Your task to perform on an android device: turn off notifications in google photos Image 0: 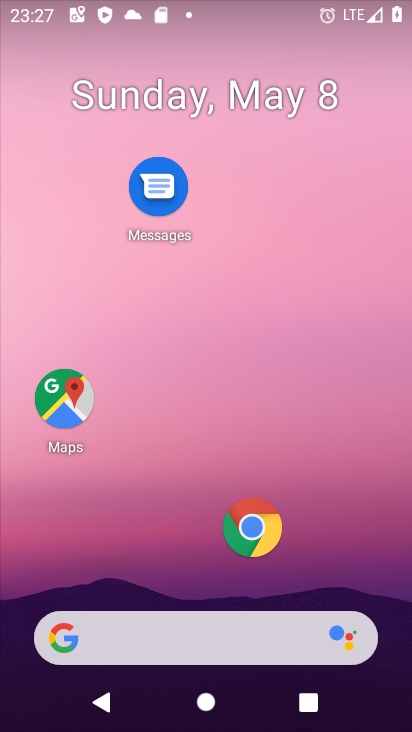
Step 0: drag from (179, 528) to (253, 85)
Your task to perform on an android device: turn off notifications in google photos Image 1: 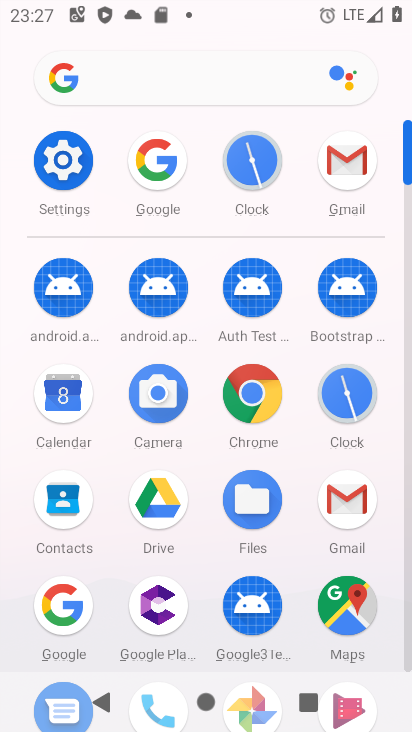
Step 1: drag from (198, 556) to (218, 222)
Your task to perform on an android device: turn off notifications in google photos Image 2: 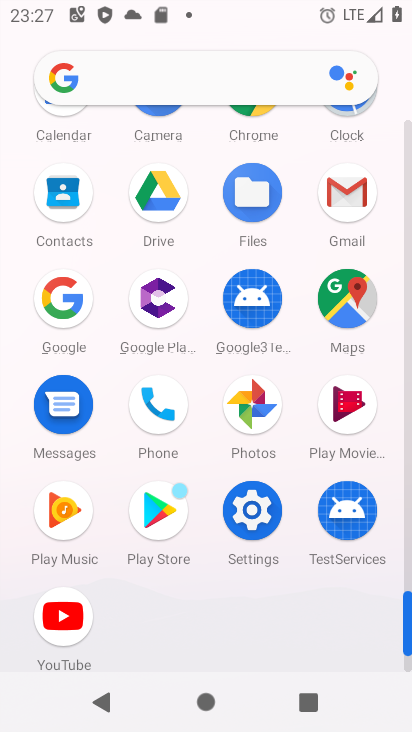
Step 2: click (253, 408)
Your task to perform on an android device: turn off notifications in google photos Image 3: 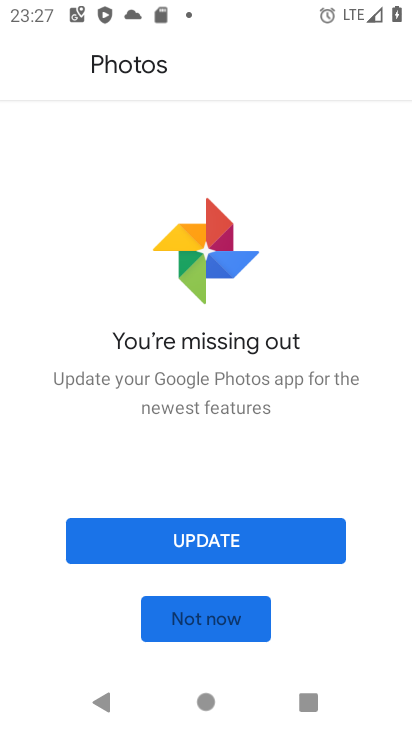
Step 3: click (202, 533)
Your task to perform on an android device: turn off notifications in google photos Image 4: 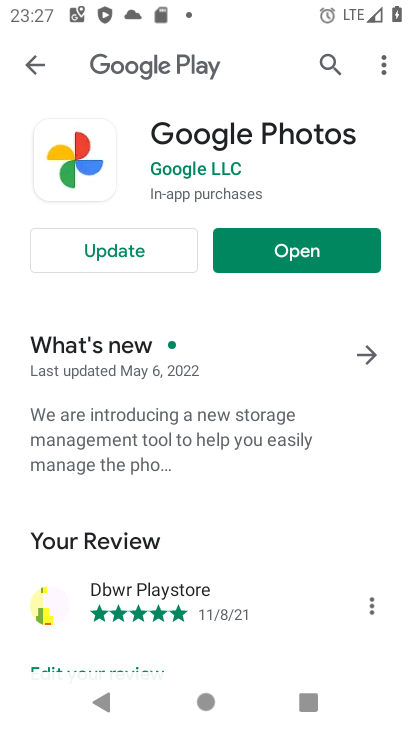
Step 4: click (102, 250)
Your task to perform on an android device: turn off notifications in google photos Image 5: 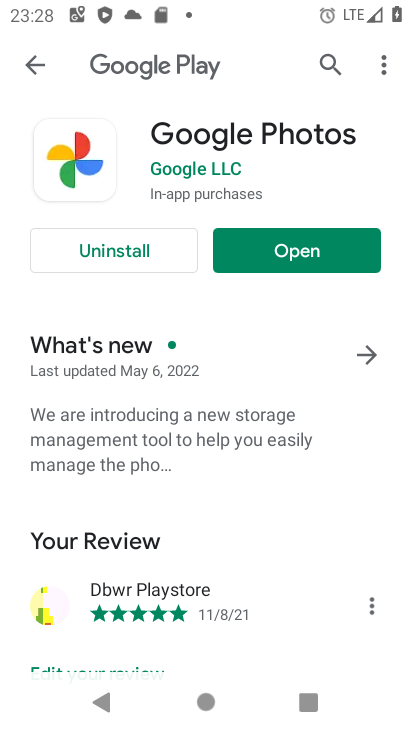
Step 5: click (319, 249)
Your task to perform on an android device: turn off notifications in google photos Image 6: 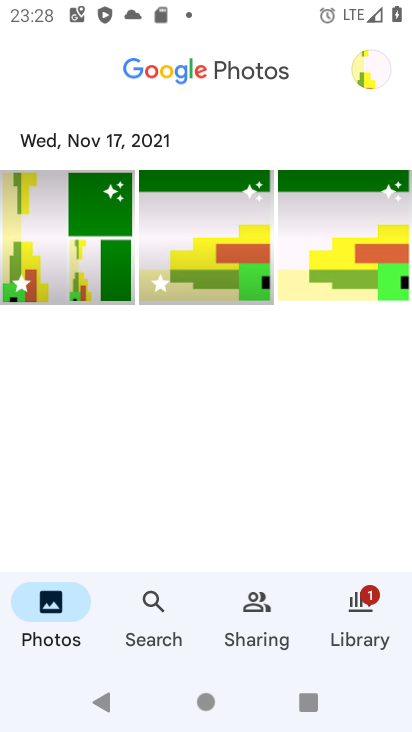
Step 6: click (370, 70)
Your task to perform on an android device: turn off notifications in google photos Image 7: 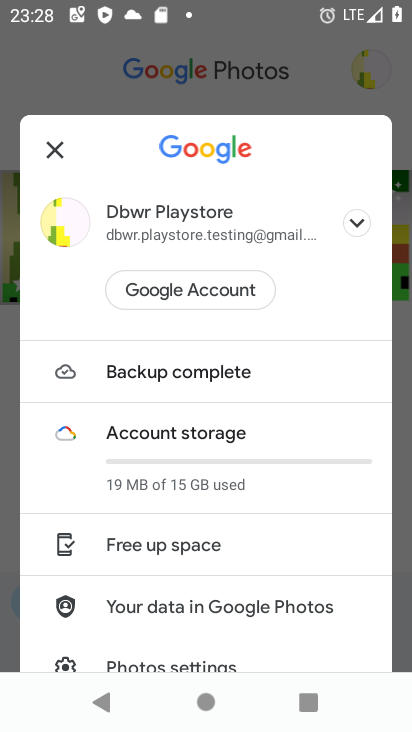
Step 7: drag from (180, 578) to (203, 313)
Your task to perform on an android device: turn off notifications in google photos Image 8: 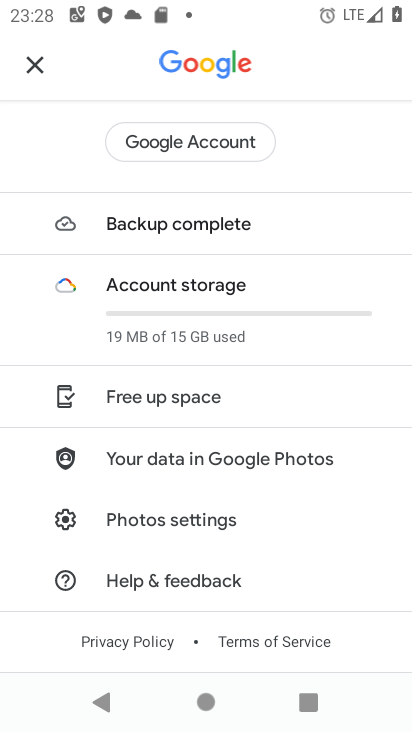
Step 8: click (176, 521)
Your task to perform on an android device: turn off notifications in google photos Image 9: 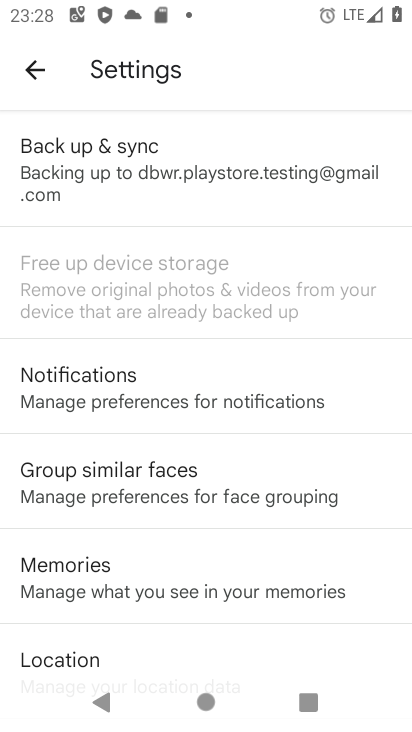
Step 9: drag from (184, 541) to (183, 378)
Your task to perform on an android device: turn off notifications in google photos Image 10: 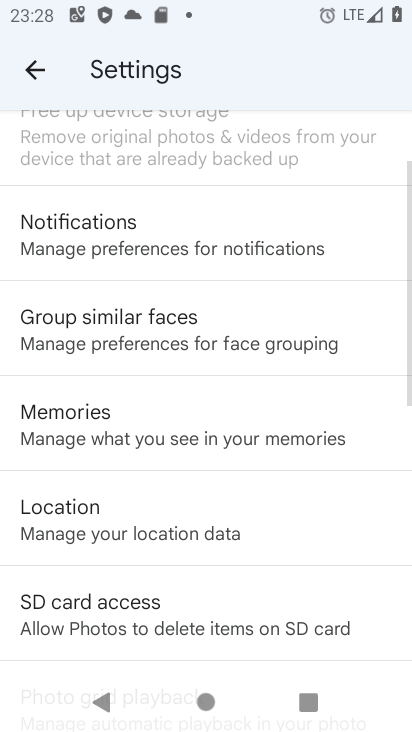
Step 10: click (143, 218)
Your task to perform on an android device: turn off notifications in google photos Image 11: 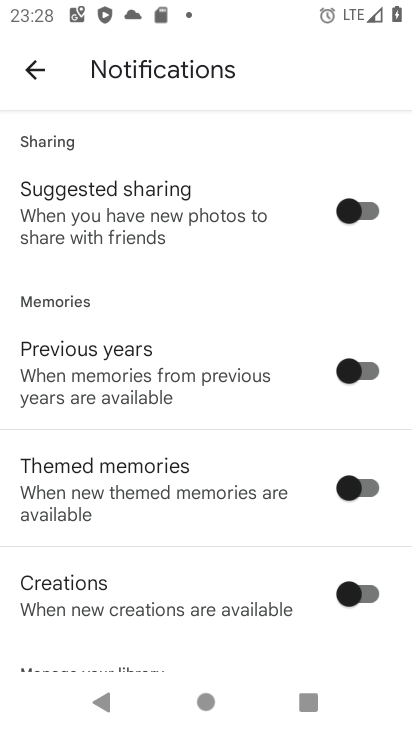
Step 11: drag from (186, 554) to (197, 686)
Your task to perform on an android device: turn off notifications in google photos Image 12: 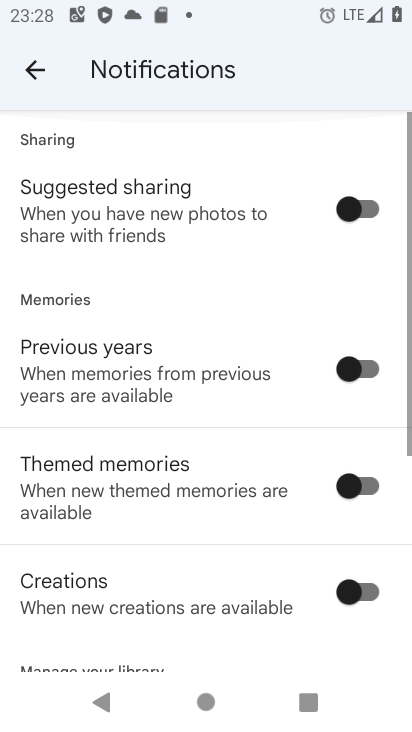
Step 12: drag from (174, 204) to (197, 465)
Your task to perform on an android device: turn off notifications in google photos Image 13: 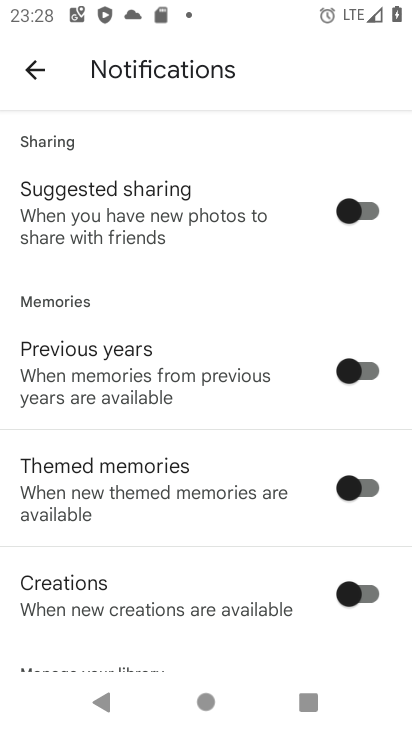
Step 13: drag from (161, 444) to (156, 0)
Your task to perform on an android device: turn off notifications in google photos Image 14: 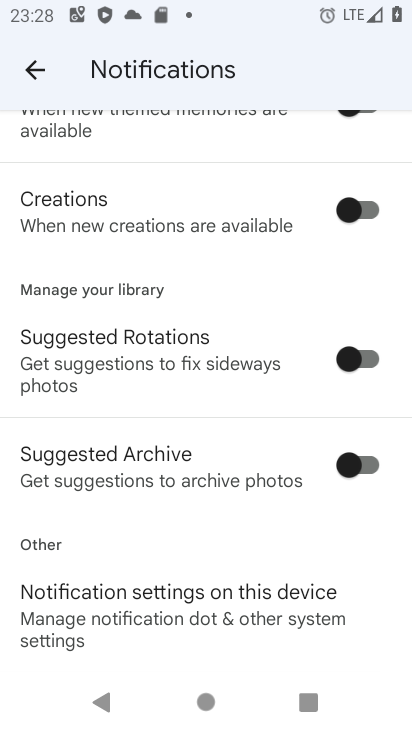
Step 14: click (145, 583)
Your task to perform on an android device: turn off notifications in google photos Image 15: 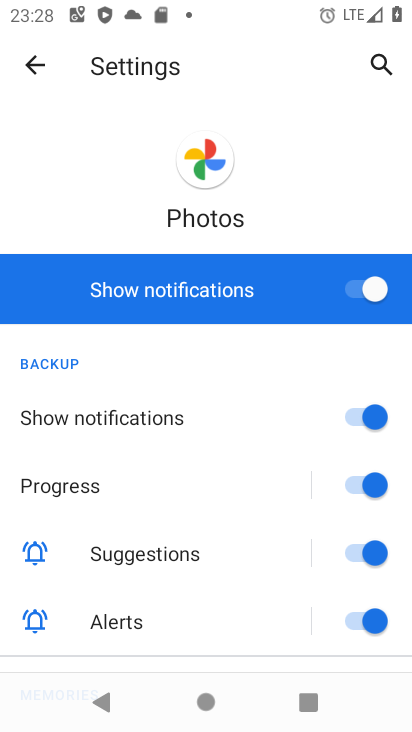
Step 15: click (364, 291)
Your task to perform on an android device: turn off notifications in google photos Image 16: 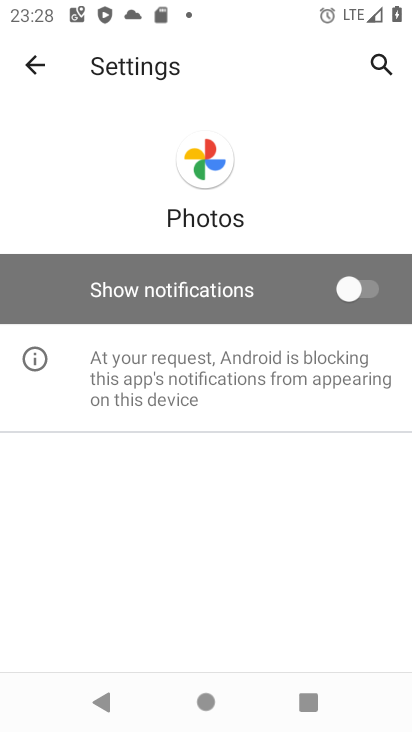
Step 16: task complete